Your task to perform on an android device: Open Amazon Image 0: 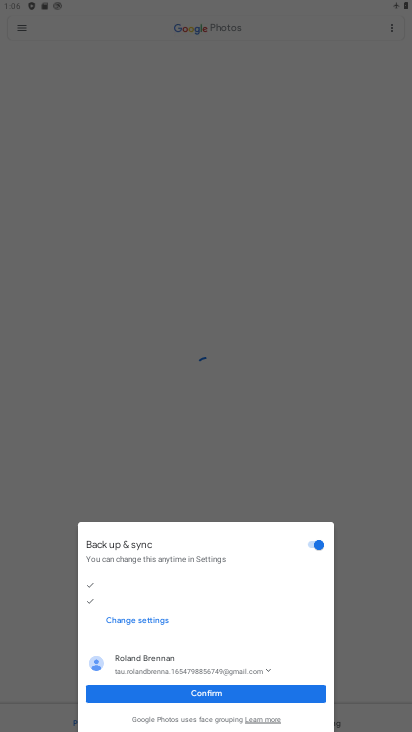
Step 0: press home button
Your task to perform on an android device: Open Amazon Image 1: 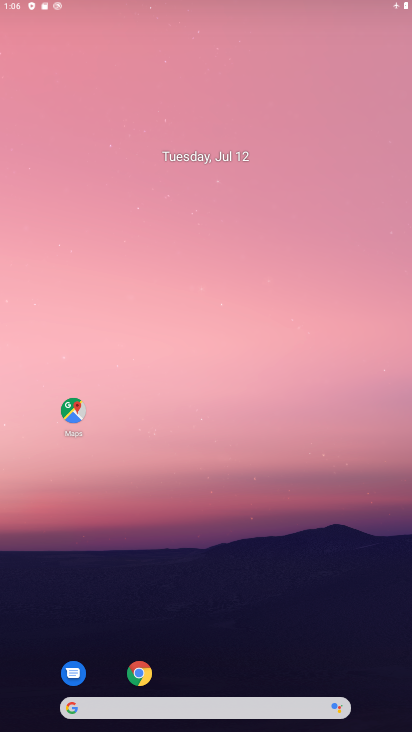
Step 1: drag from (275, 612) to (257, 279)
Your task to perform on an android device: Open Amazon Image 2: 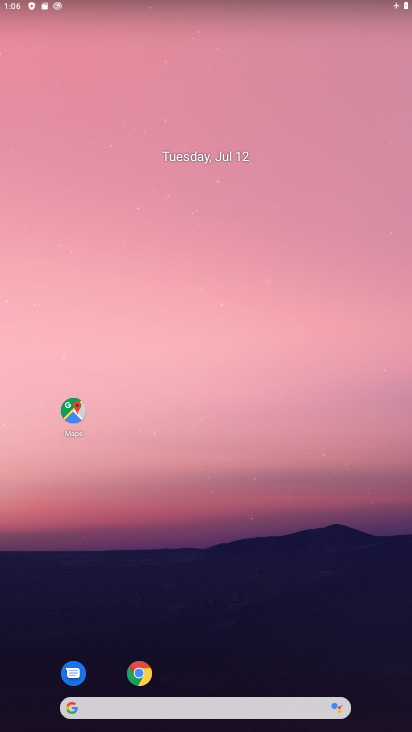
Step 2: click (145, 667)
Your task to perform on an android device: Open Amazon Image 3: 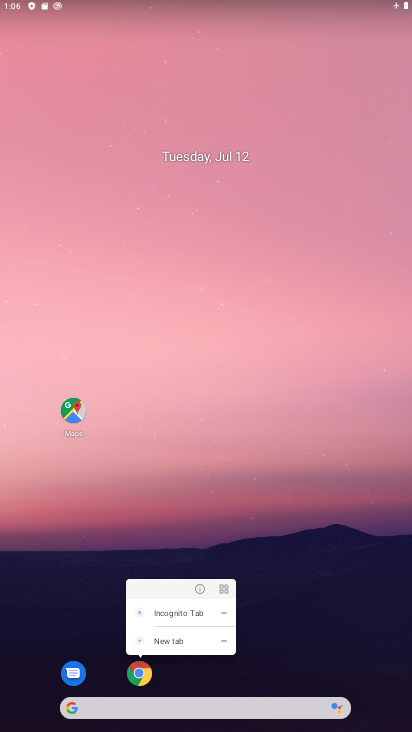
Step 3: click (145, 667)
Your task to perform on an android device: Open Amazon Image 4: 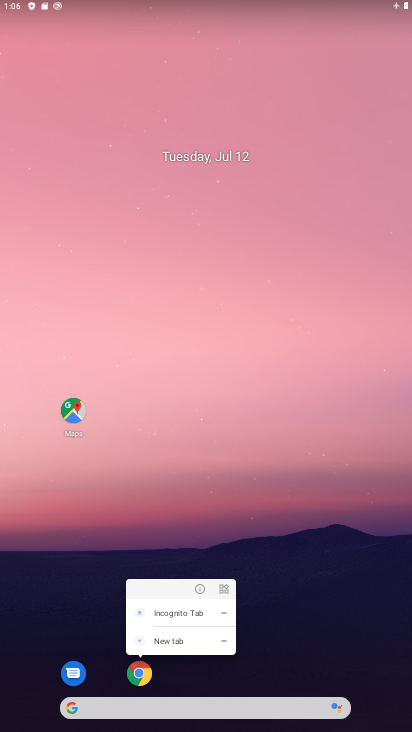
Step 4: click (145, 667)
Your task to perform on an android device: Open Amazon Image 5: 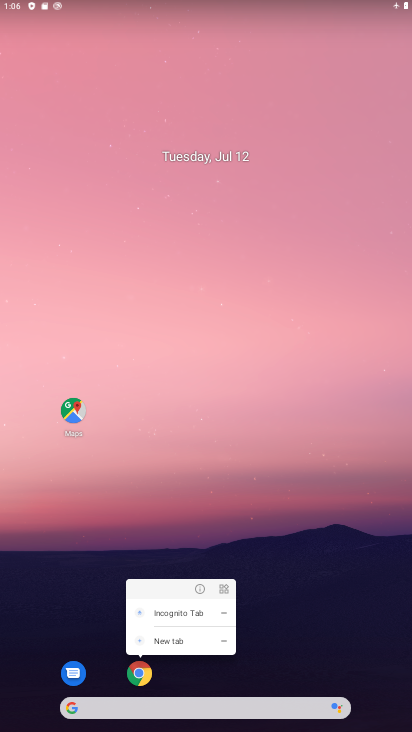
Step 5: click (145, 688)
Your task to perform on an android device: Open Amazon Image 6: 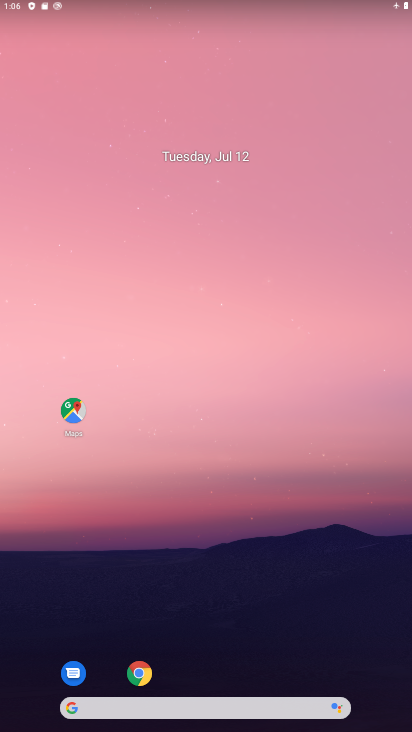
Step 6: click (134, 688)
Your task to perform on an android device: Open Amazon Image 7: 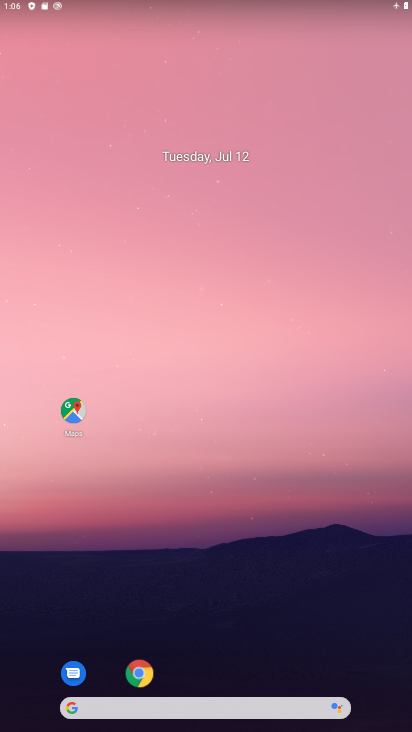
Step 7: click (134, 682)
Your task to perform on an android device: Open Amazon Image 8: 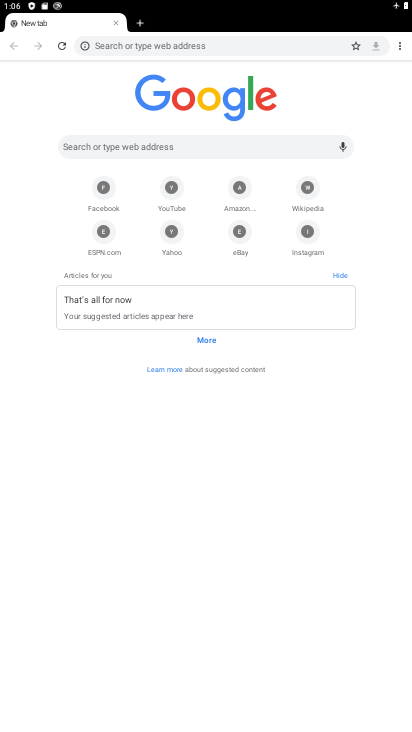
Step 8: click (236, 188)
Your task to perform on an android device: Open Amazon Image 9: 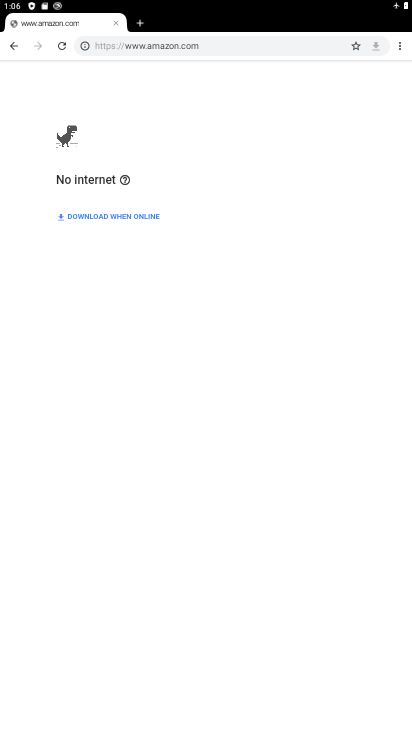
Step 9: task complete